Your task to perform on an android device: Open my contact list Image 0: 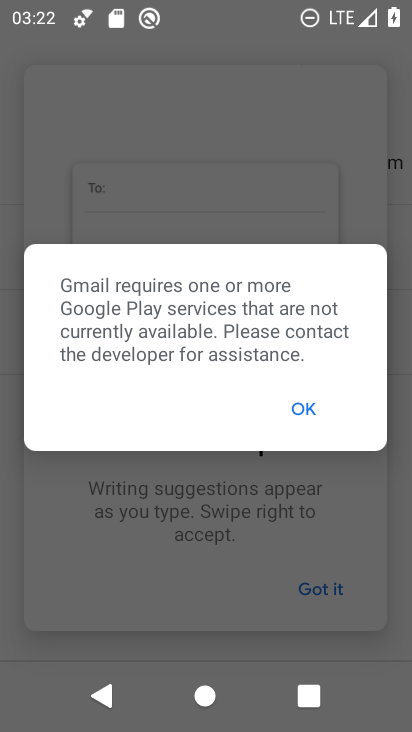
Step 0: press home button
Your task to perform on an android device: Open my contact list Image 1: 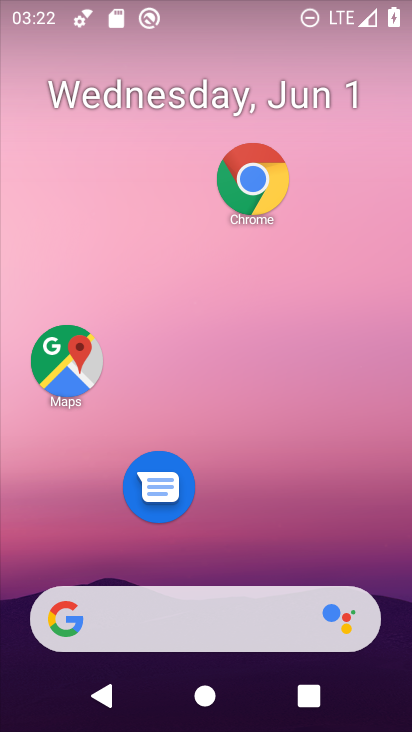
Step 1: drag from (282, 538) to (276, 228)
Your task to perform on an android device: Open my contact list Image 2: 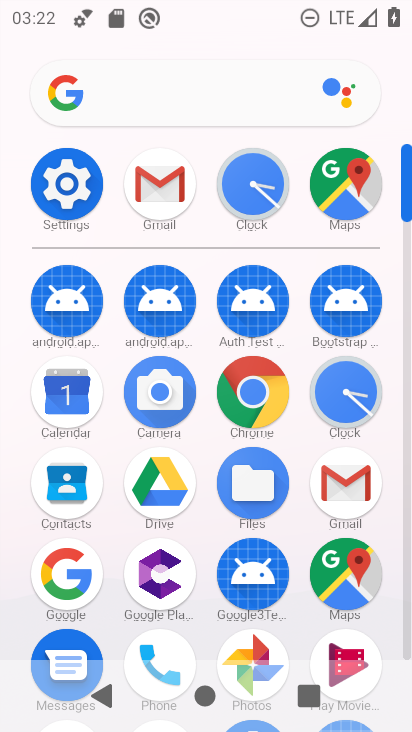
Step 2: click (160, 636)
Your task to perform on an android device: Open my contact list Image 3: 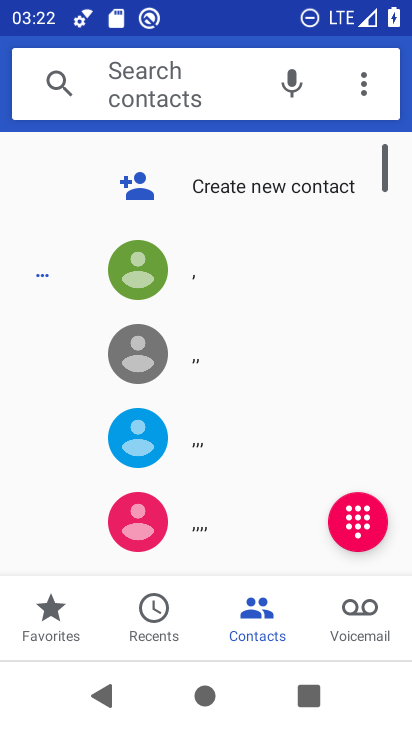
Step 3: click (357, 625)
Your task to perform on an android device: Open my contact list Image 4: 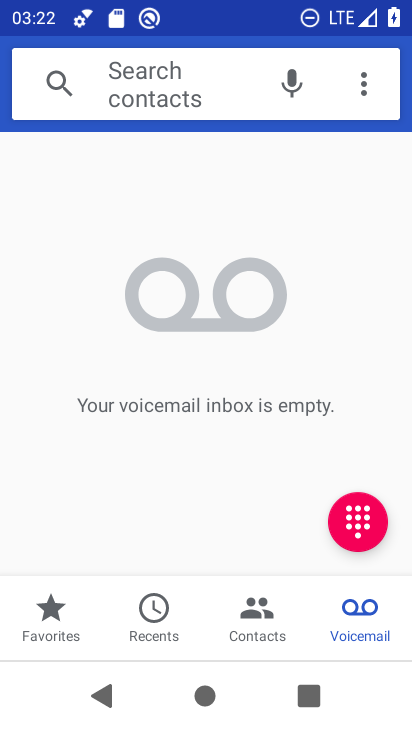
Step 4: click (248, 615)
Your task to perform on an android device: Open my contact list Image 5: 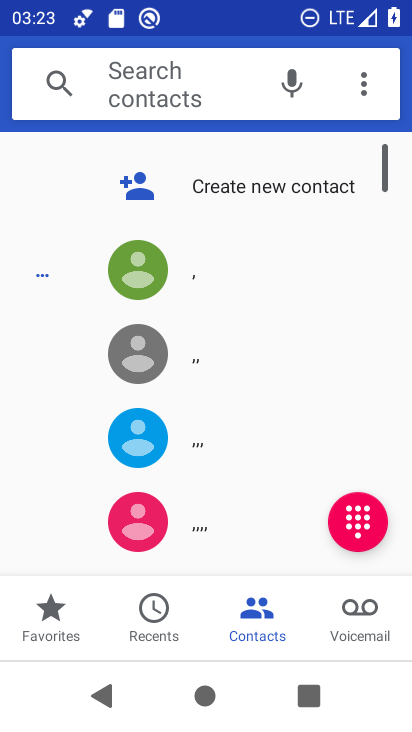
Step 5: task complete